Your task to perform on an android device: Check the weather Image 0: 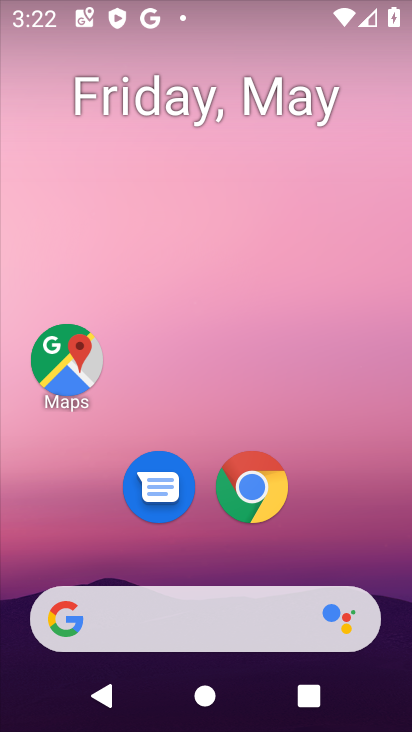
Step 0: drag from (403, 631) to (400, 34)
Your task to perform on an android device: Check the weather Image 1: 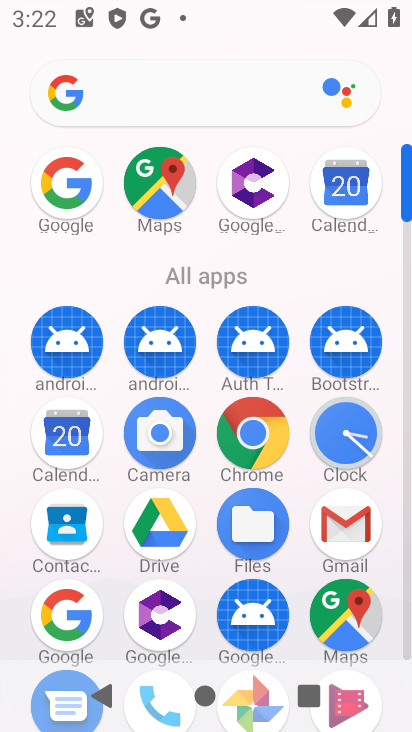
Step 1: click (70, 603)
Your task to perform on an android device: Check the weather Image 2: 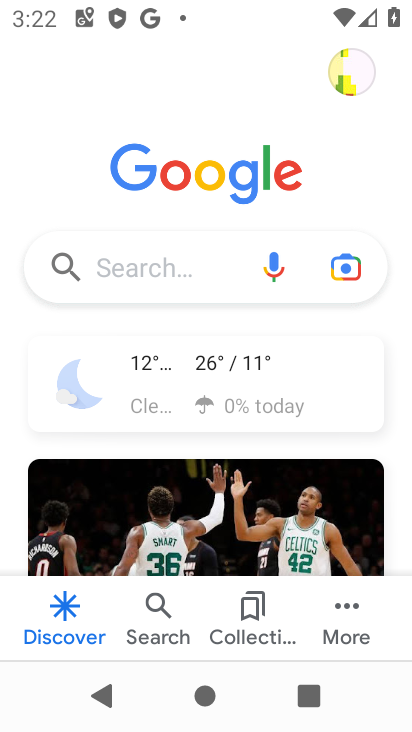
Step 2: click (146, 255)
Your task to perform on an android device: Check the weather Image 3: 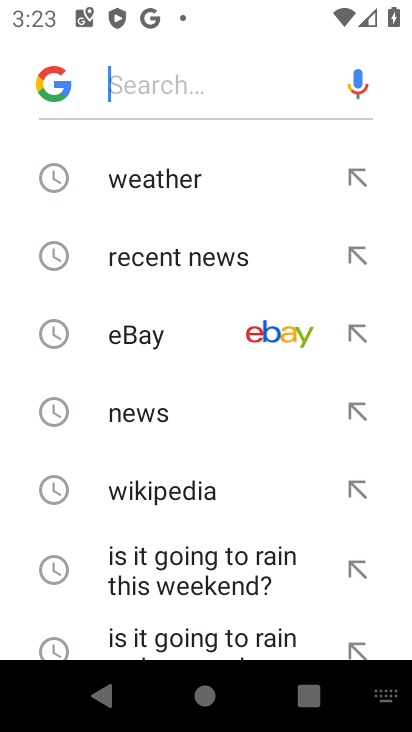
Step 3: click (157, 182)
Your task to perform on an android device: Check the weather Image 4: 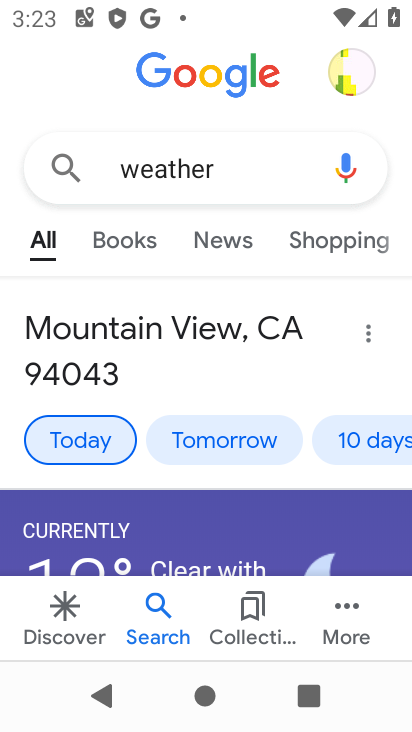
Step 4: task complete